Your task to perform on an android device: set default search engine in the chrome app Image 0: 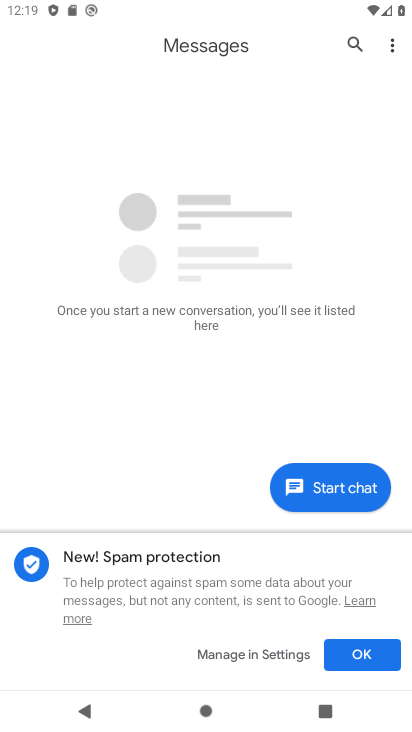
Step 0: press home button
Your task to perform on an android device: set default search engine in the chrome app Image 1: 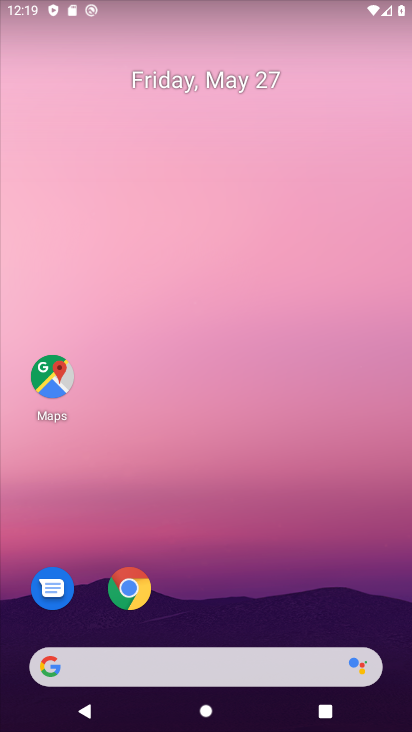
Step 1: click (131, 580)
Your task to perform on an android device: set default search engine in the chrome app Image 2: 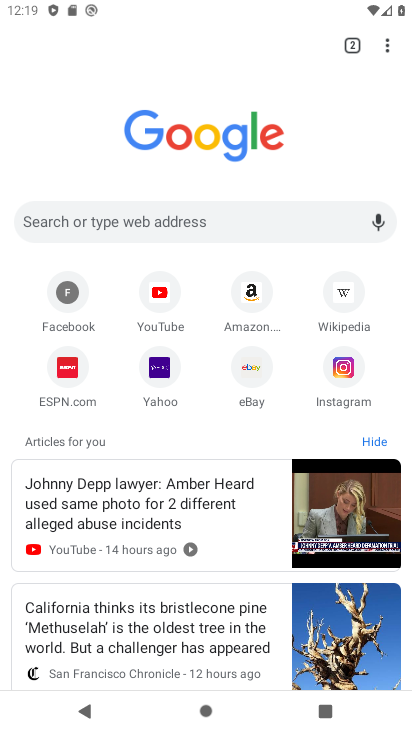
Step 2: click (385, 40)
Your task to perform on an android device: set default search engine in the chrome app Image 3: 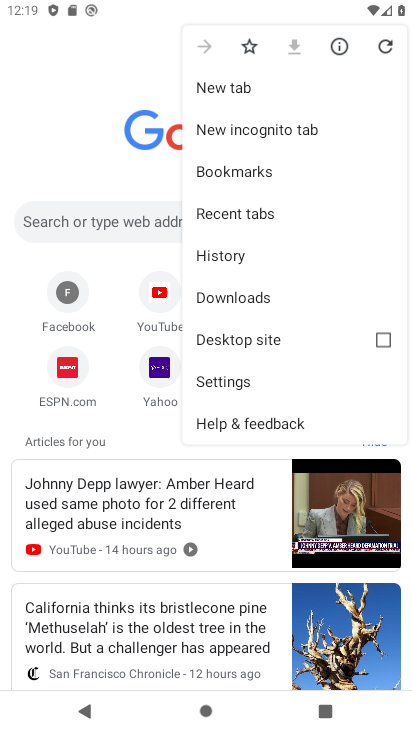
Step 3: click (242, 384)
Your task to perform on an android device: set default search engine in the chrome app Image 4: 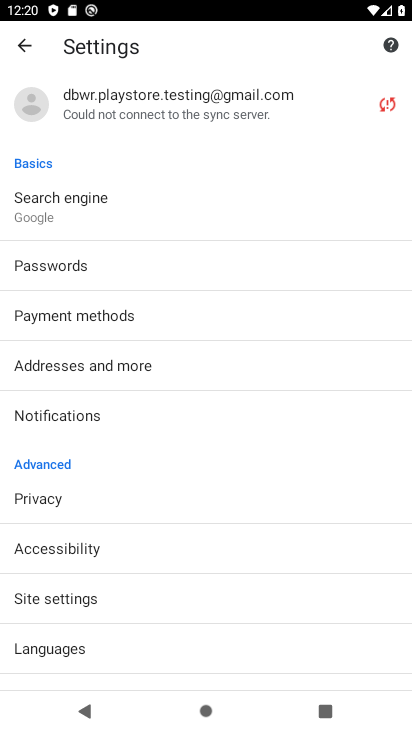
Step 4: click (118, 215)
Your task to perform on an android device: set default search engine in the chrome app Image 5: 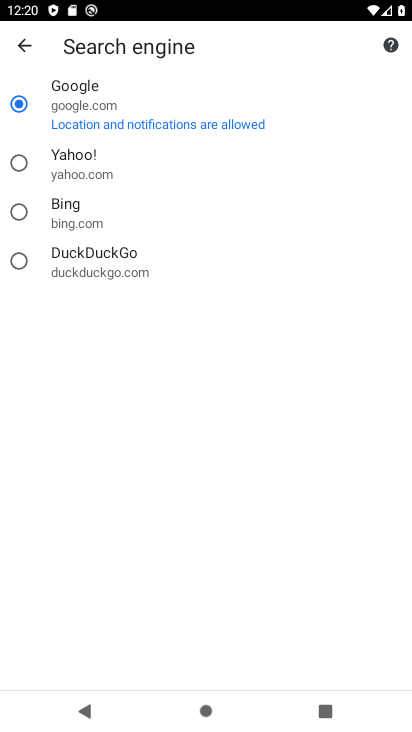
Step 5: click (21, 163)
Your task to perform on an android device: set default search engine in the chrome app Image 6: 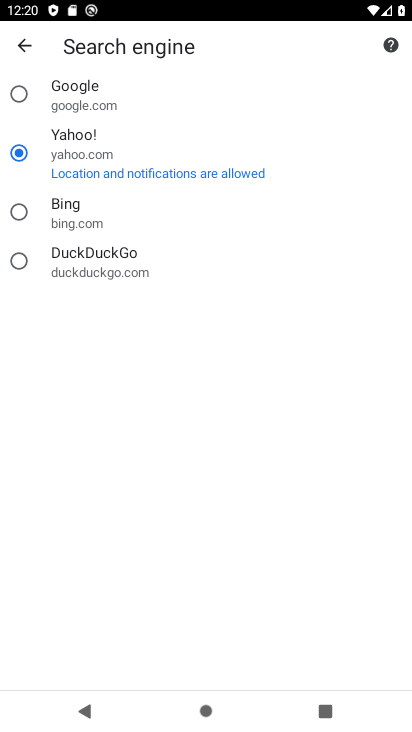
Step 6: task complete